Your task to perform on an android device: Go to eBay Image 0: 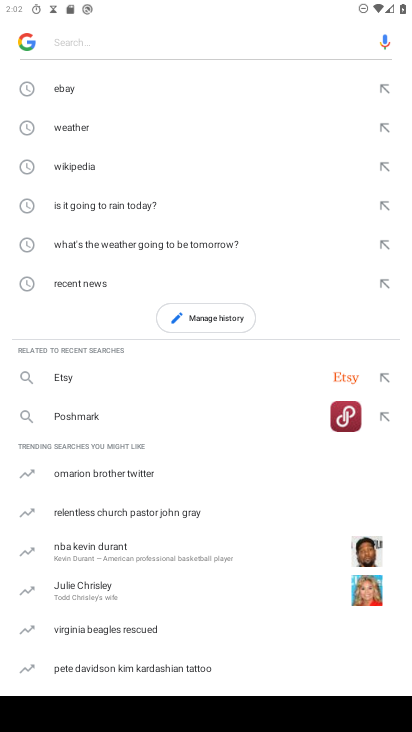
Step 0: press home button
Your task to perform on an android device: Go to eBay Image 1: 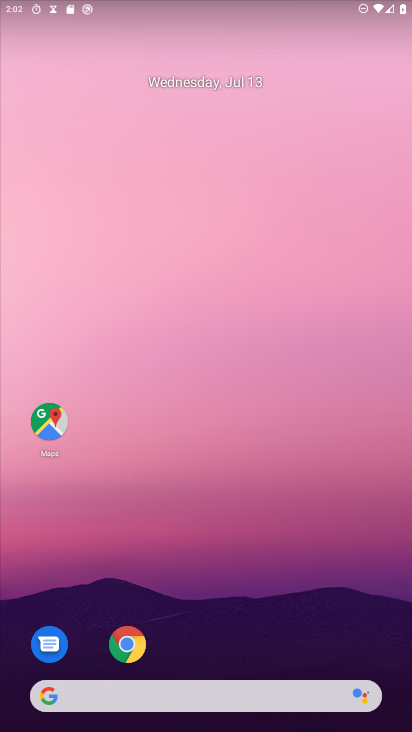
Step 1: click (92, 690)
Your task to perform on an android device: Go to eBay Image 2: 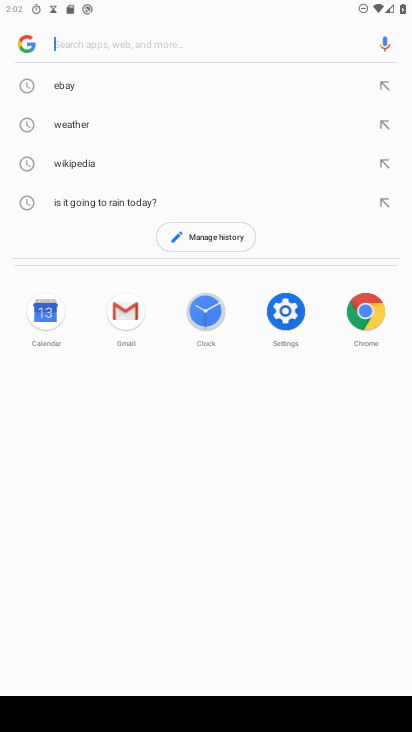
Step 2: type " eBay"
Your task to perform on an android device: Go to eBay Image 3: 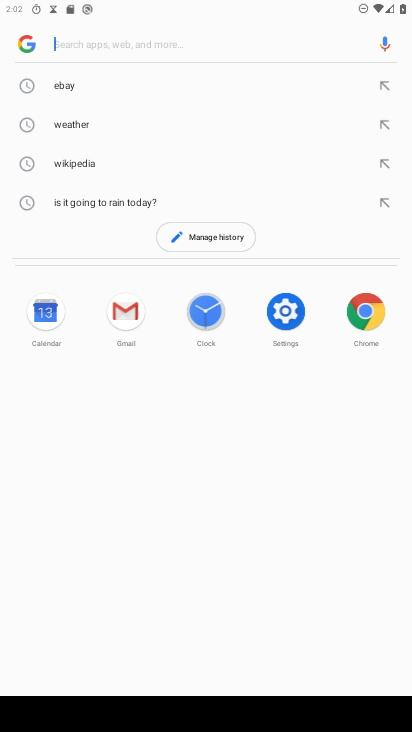
Step 3: click (74, 38)
Your task to perform on an android device: Go to eBay Image 4: 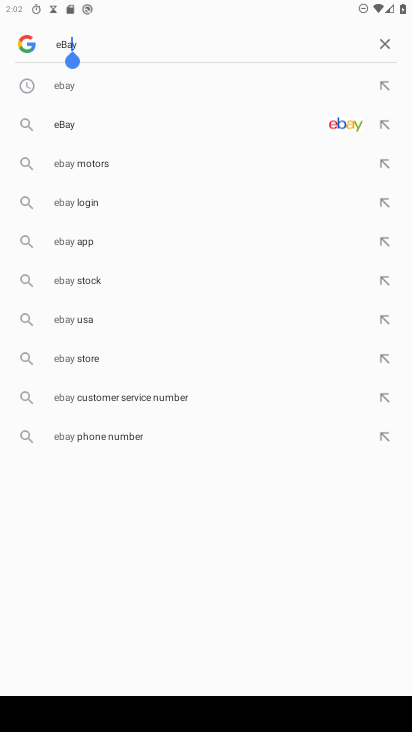
Step 4: press enter
Your task to perform on an android device: Go to eBay Image 5: 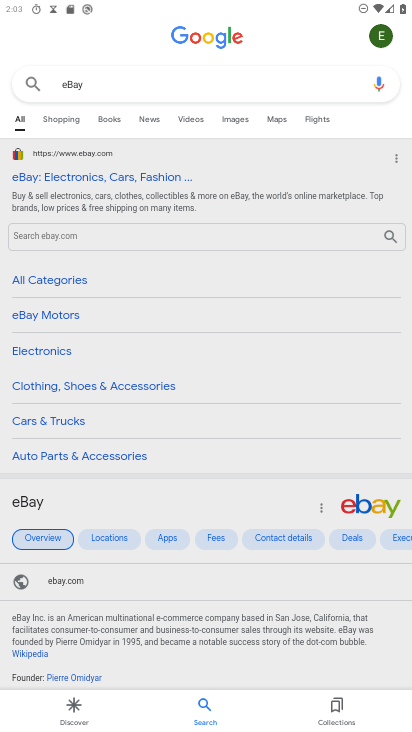
Step 5: click (75, 174)
Your task to perform on an android device: Go to eBay Image 6: 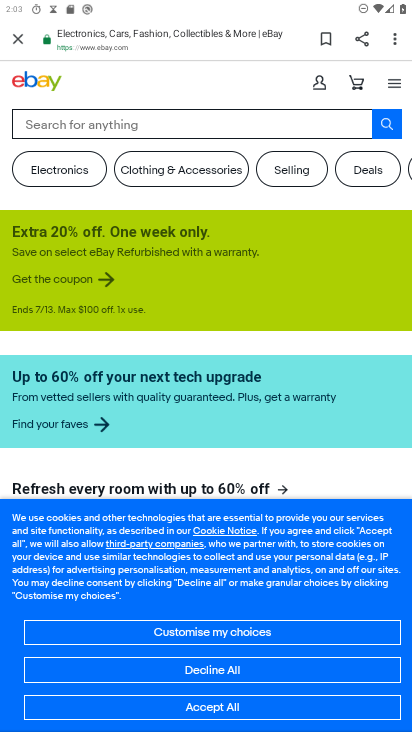
Step 6: task complete